Your task to perform on an android device: Check the news Image 0: 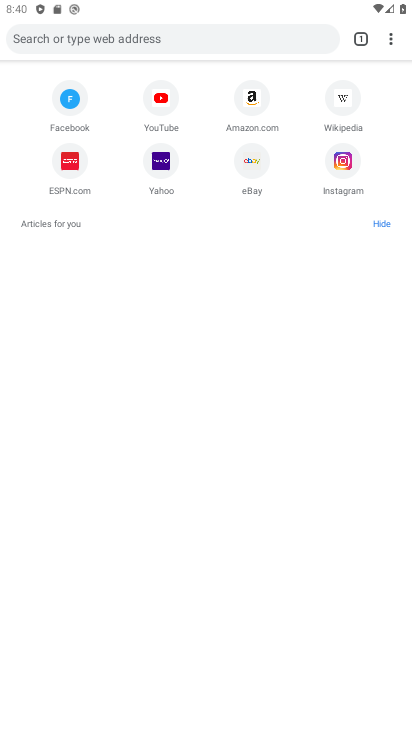
Step 0: press home button
Your task to perform on an android device: Check the news Image 1: 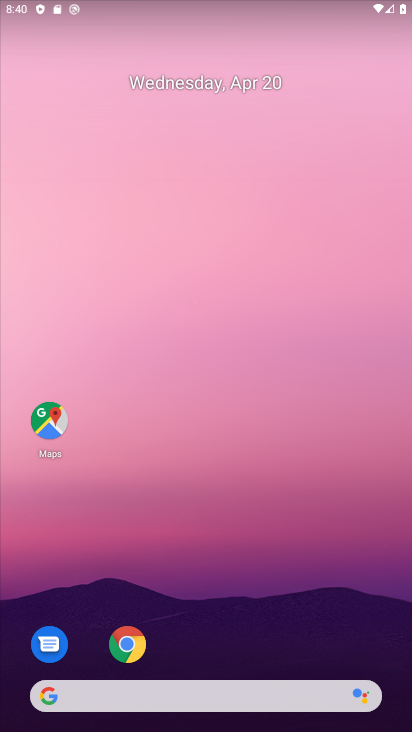
Step 1: drag from (307, 590) to (261, 29)
Your task to perform on an android device: Check the news Image 2: 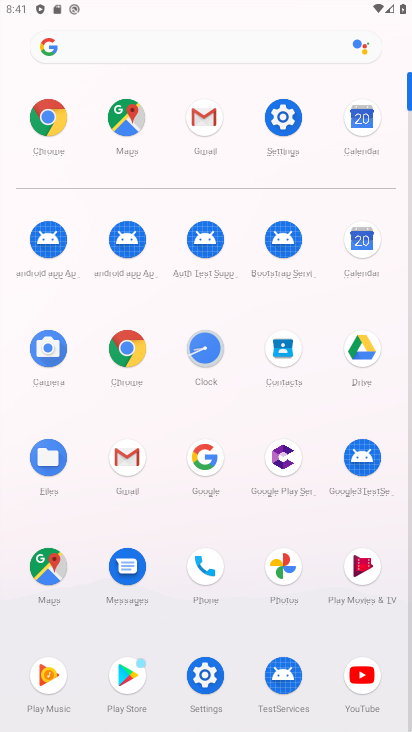
Step 2: click (128, 342)
Your task to perform on an android device: Check the news Image 3: 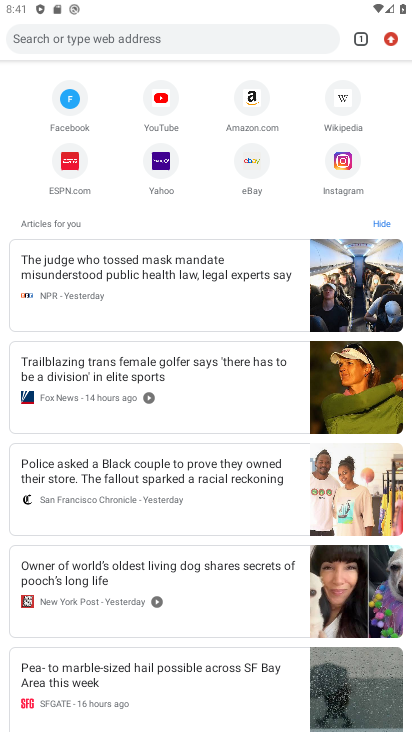
Step 3: click (176, 279)
Your task to perform on an android device: Check the news Image 4: 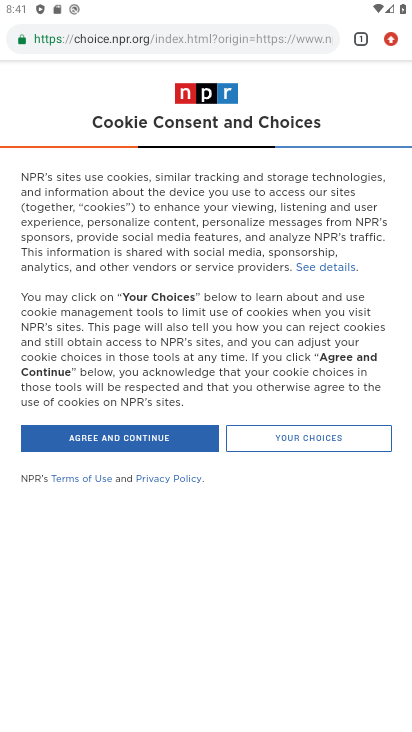
Step 4: task complete